Your task to perform on an android device: change your default location settings in chrome Image 0: 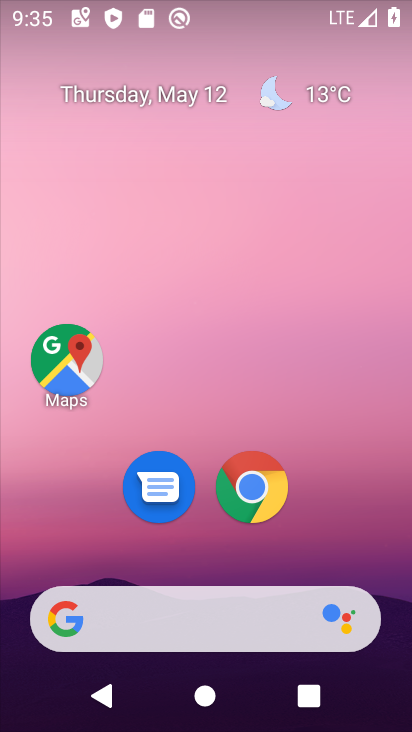
Step 0: click (260, 495)
Your task to perform on an android device: change your default location settings in chrome Image 1: 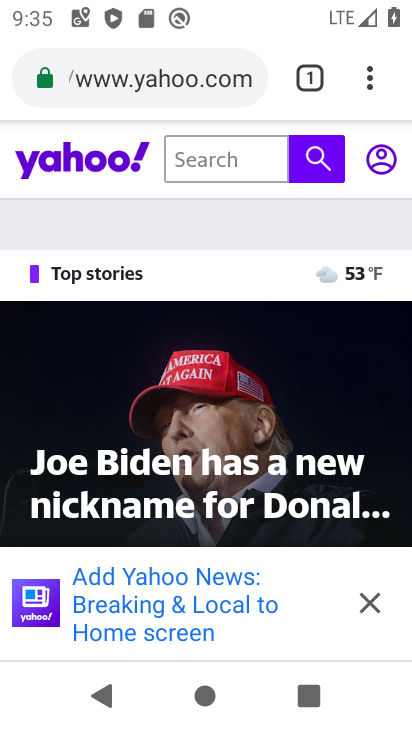
Step 1: click (377, 87)
Your task to perform on an android device: change your default location settings in chrome Image 2: 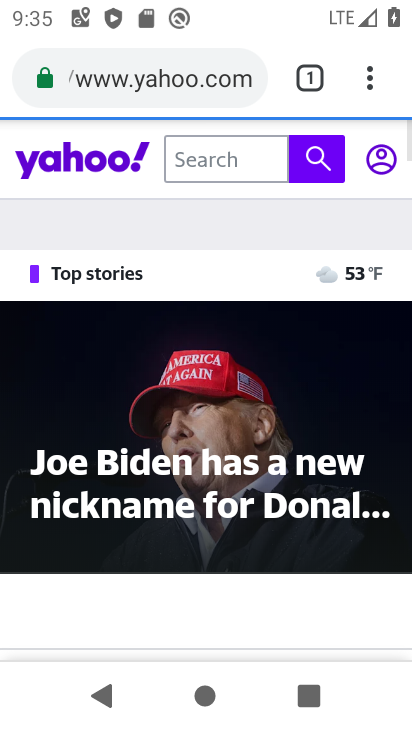
Step 2: click (370, 75)
Your task to perform on an android device: change your default location settings in chrome Image 3: 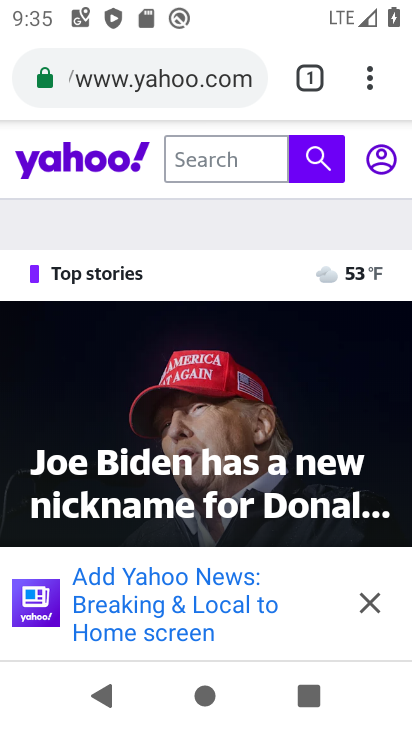
Step 3: click (370, 79)
Your task to perform on an android device: change your default location settings in chrome Image 4: 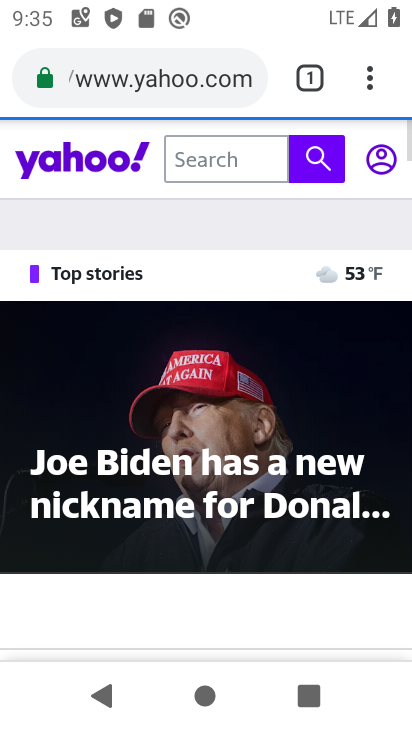
Step 4: drag from (370, 81) to (124, 558)
Your task to perform on an android device: change your default location settings in chrome Image 5: 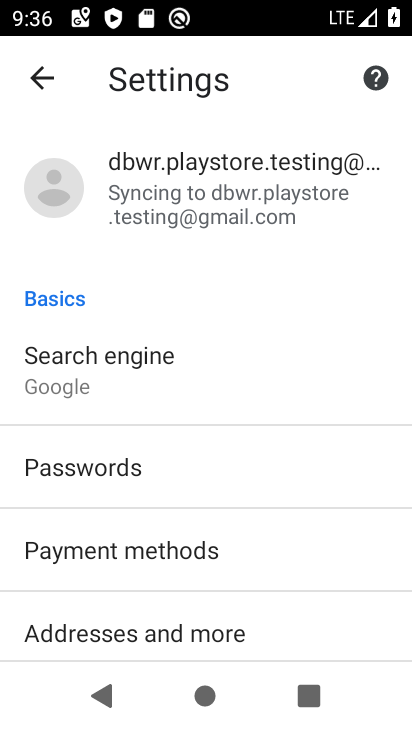
Step 5: drag from (179, 572) to (212, 79)
Your task to perform on an android device: change your default location settings in chrome Image 6: 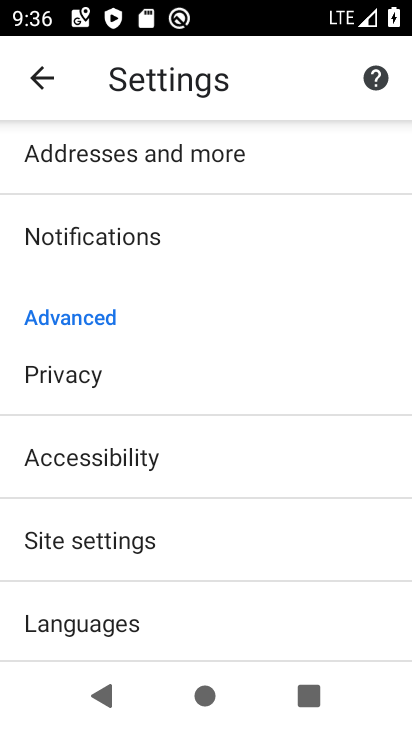
Step 6: click (110, 540)
Your task to perform on an android device: change your default location settings in chrome Image 7: 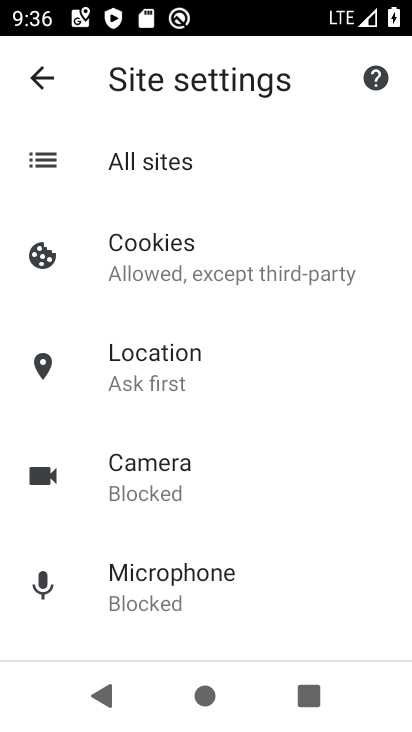
Step 7: click (166, 383)
Your task to perform on an android device: change your default location settings in chrome Image 8: 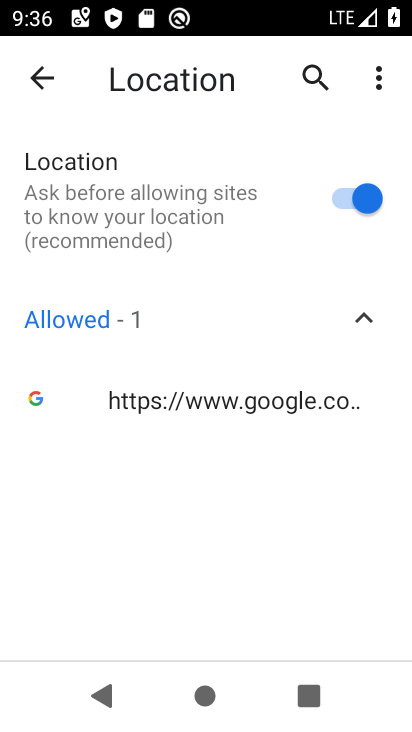
Step 8: click (367, 201)
Your task to perform on an android device: change your default location settings in chrome Image 9: 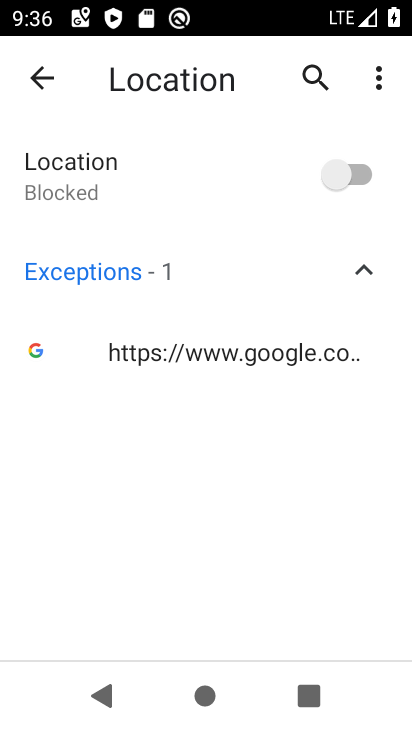
Step 9: task complete